Your task to perform on an android device: read, delete, or share a saved page in the chrome app Image 0: 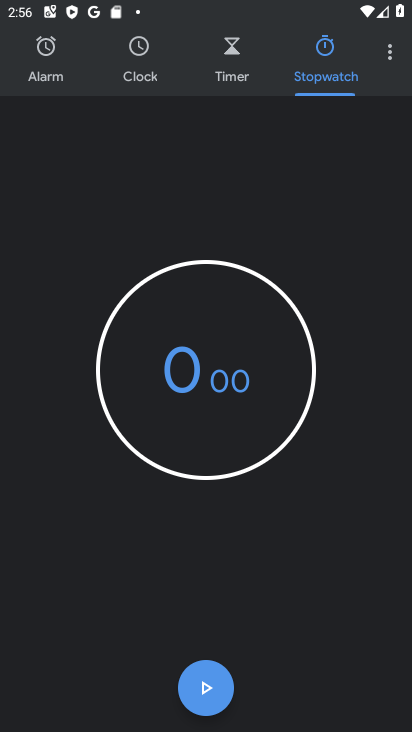
Step 0: press home button
Your task to perform on an android device: read, delete, or share a saved page in the chrome app Image 1: 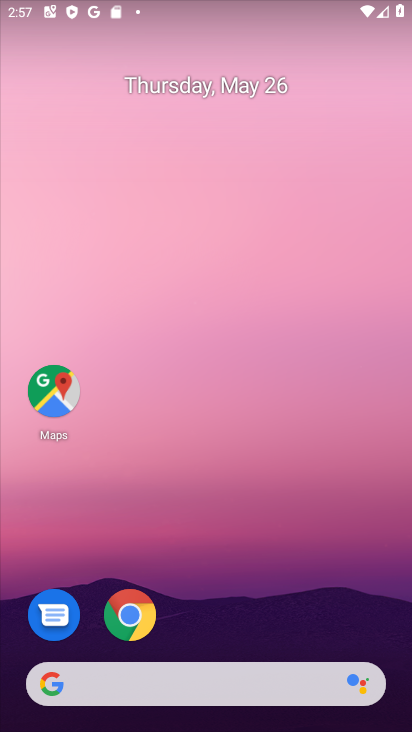
Step 1: click (113, 641)
Your task to perform on an android device: read, delete, or share a saved page in the chrome app Image 2: 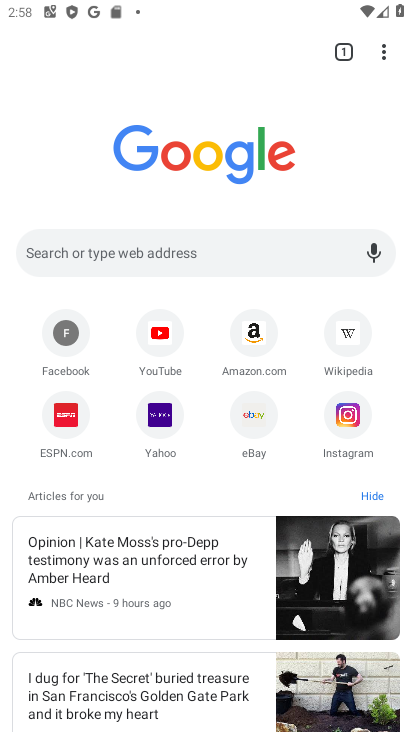
Step 2: click (387, 50)
Your task to perform on an android device: read, delete, or share a saved page in the chrome app Image 3: 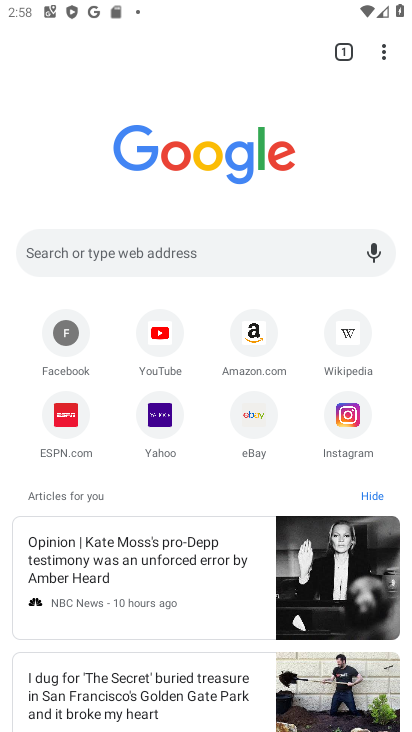
Step 3: click (382, 56)
Your task to perform on an android device: read, delete, or share a saved page in the chrome app Image 4: 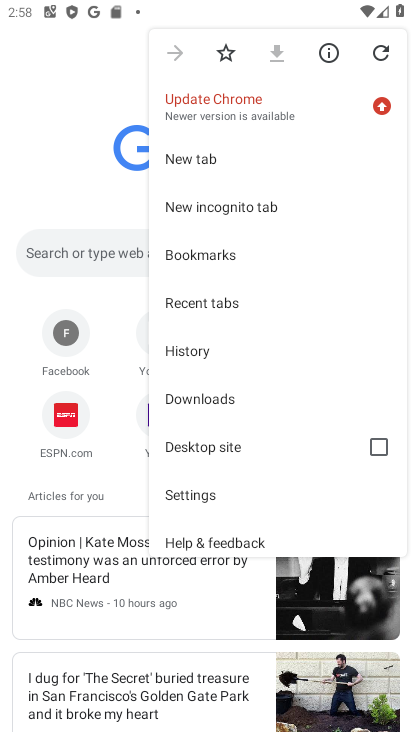
Step 4: click (203, 499)
Your task to perform on an android device: read, delete, or share a saved page in the chrome app Image 5: 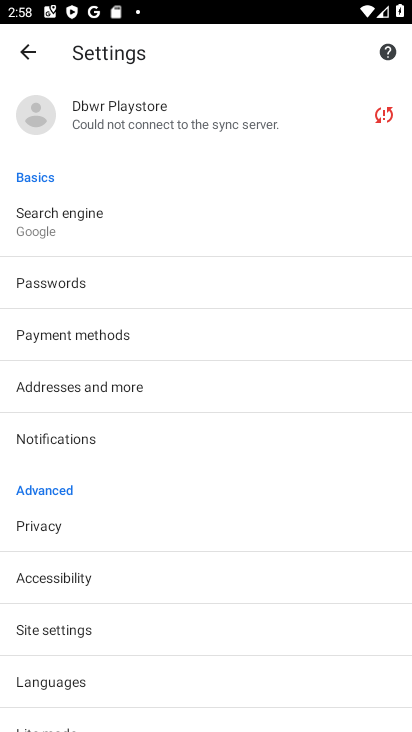
Step 5: task complete